Your task to perform on an android device: Open Google Maps and go to "Timeline" Image 0: 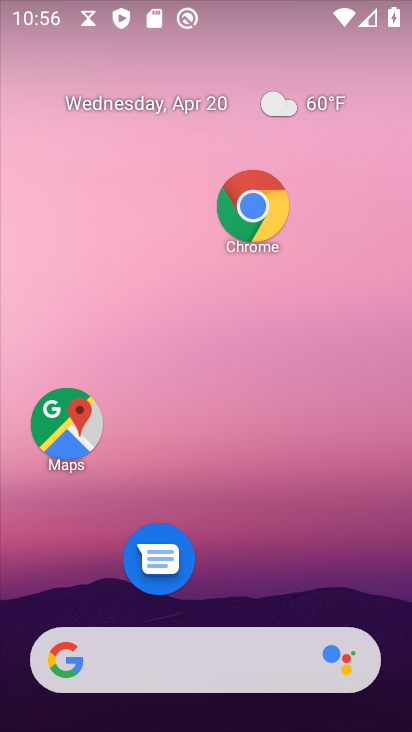
Step 0: drag from (240, 567) to (233, 20)
Your task to perform on an android device: Open Google Maps and go to "Timeline" Image 1: 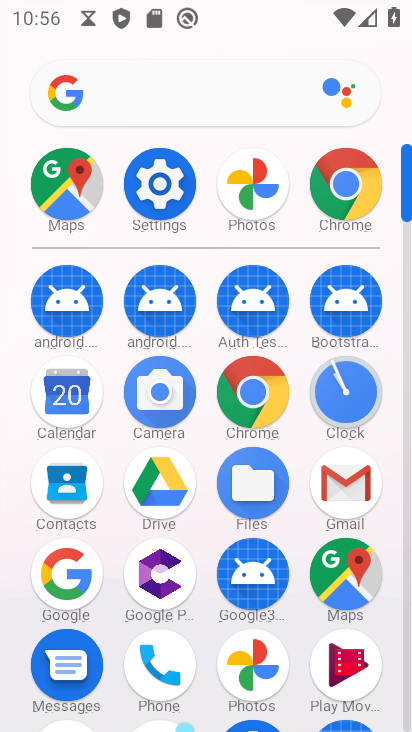
Step 1: click (355, 579)
Your task to perform on an android device: Open Google Maps and go to "Timeline" Image 2: 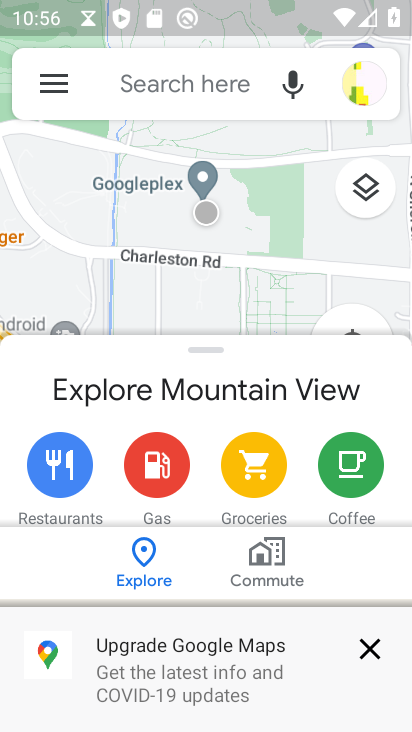
Step 2: click (36, 78)
Your task to perform on an android device: Open Google Maps and go to "Timeline" Image 3: 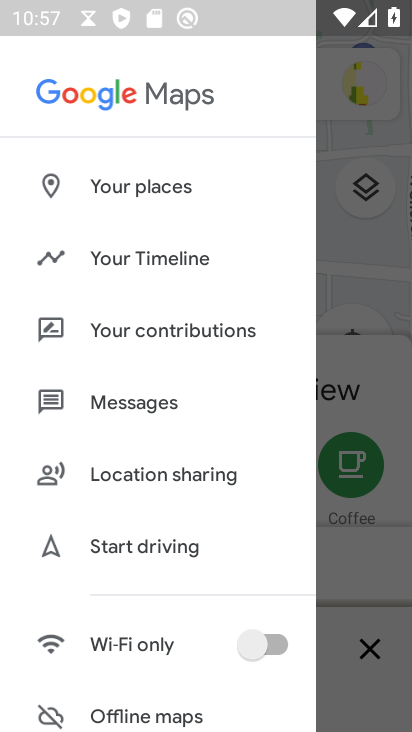
Step 3: drag from (103, 490) to (97, 206)
Your task to perform on an android device: Open Google Maps and go to "Timeline" Image 4: 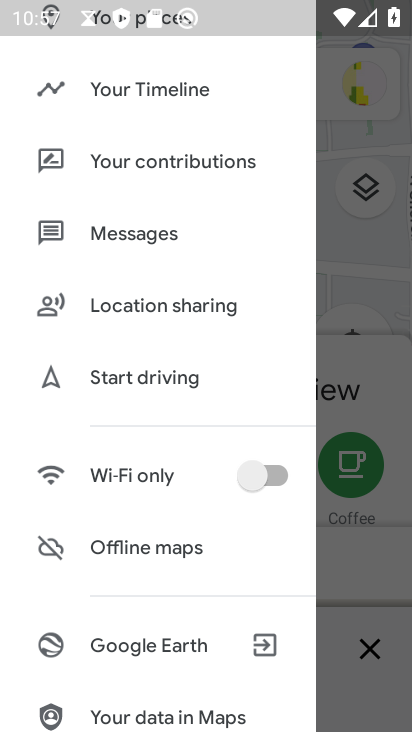
Step 4: click (132, 89)
Your task to perform on an android device: Open Google Maps and go to "Timeline" Image 5: 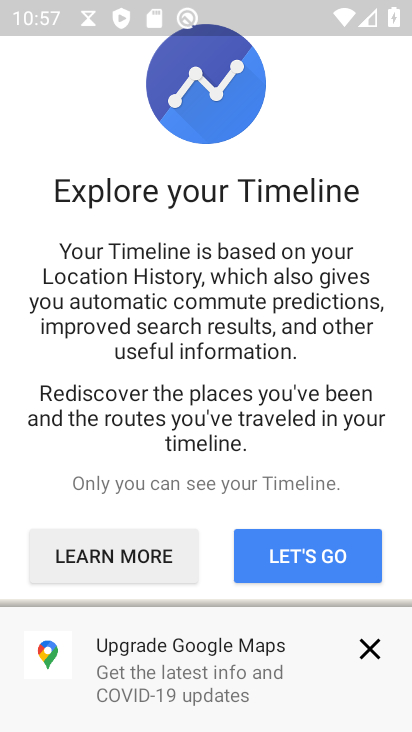
Step 5: click (370, 653)
Your task to perform on an android device: Open Google Maps and go to "Timeline" Image 6: 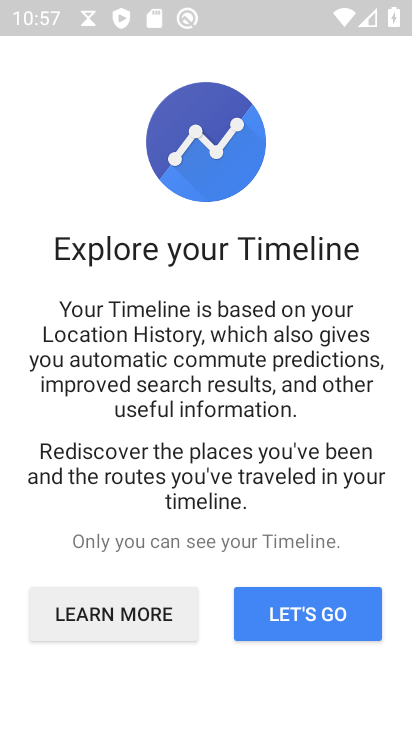
Step 6: click (288, 609)
Your task to perform on an android device: Open Google Maps and go to "Timeline" Image 7: 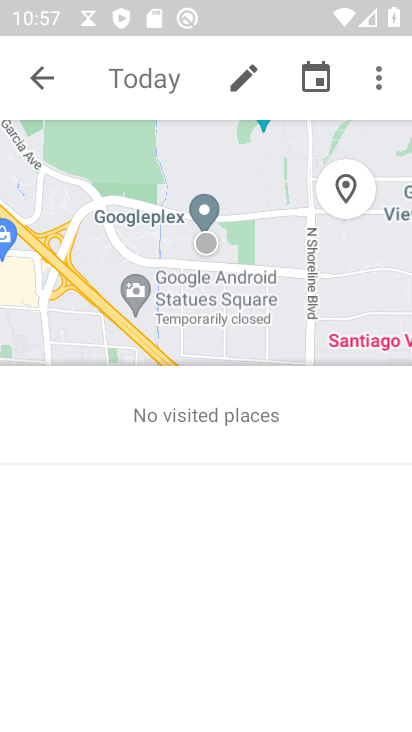
Step 7: task complete